Your task to perform on an android device: turn off location Image 0: 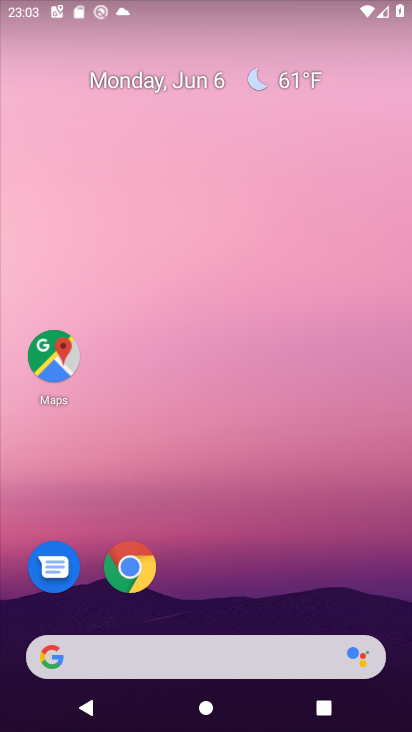
Step 0: drag from (249, 720) to (242, 0)
Your task to perform on an android device: turn off location Image 1: 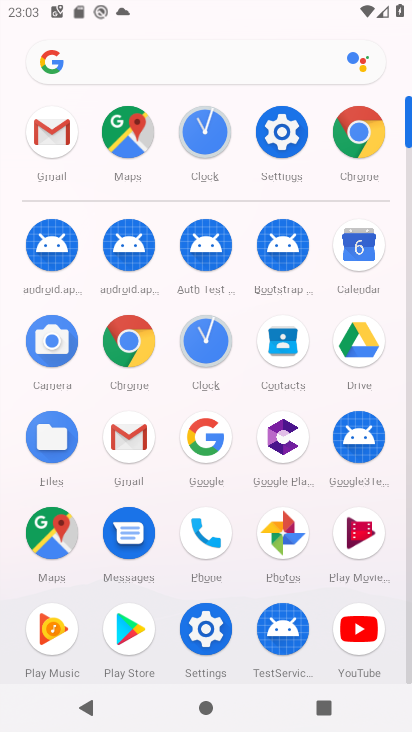
Step 1: click (285, 132)
Your task to perform on an android device: turn off location Image 2: 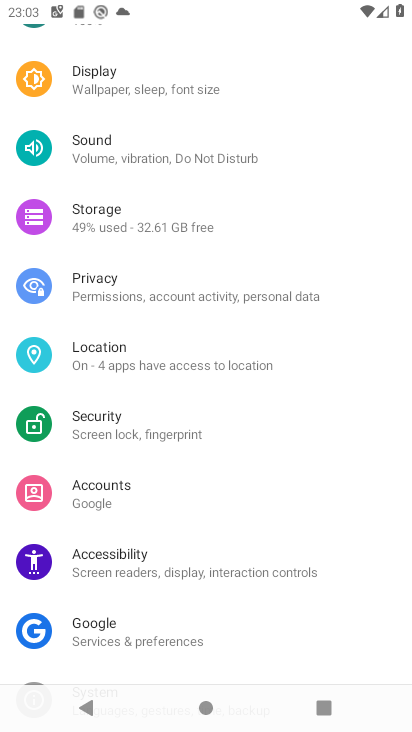
Step 2: click (105, 368)
Your task to perform on an android device: turn off location Image 3: 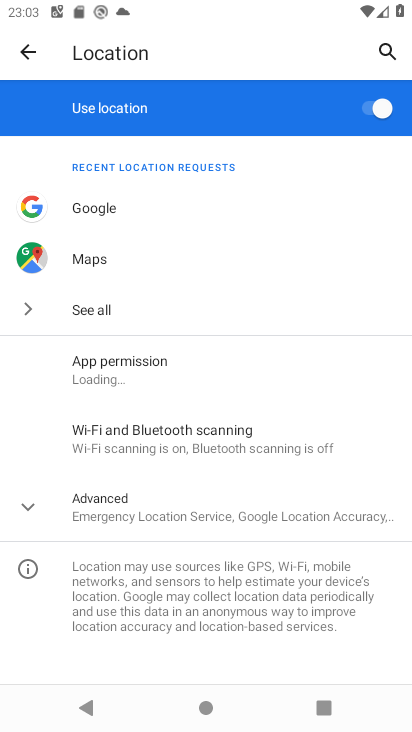
Step 3: click (362, 114)
Your task to perform on an android device: turn off location Image 4: 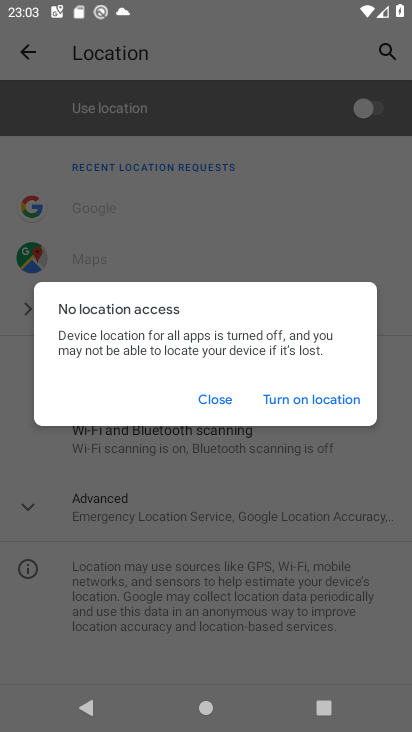
Step 4: click (214, 395)
Your task to perform on an android device: turn off location Image 5: 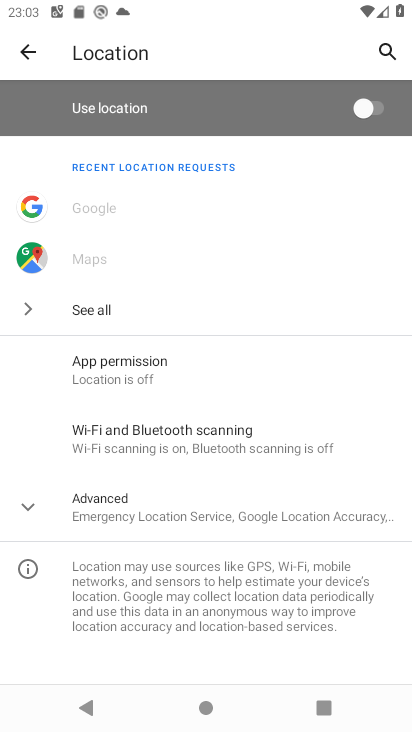
Step 5: task complete